Your task to perform on an android device: Open eBay Image 0: 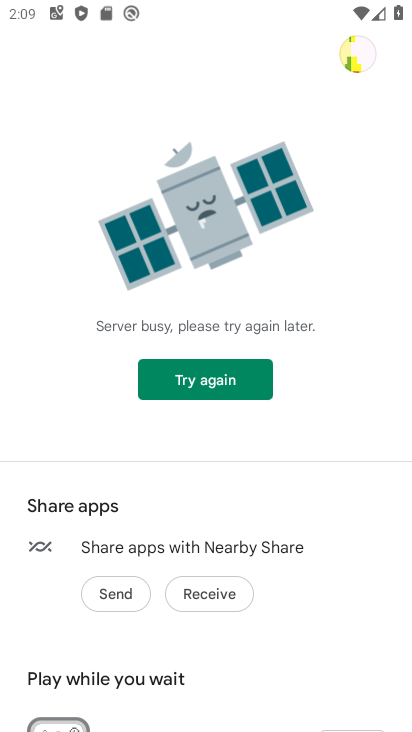
Step 0: press home button
Your task to perform on an android device: Open eBay Image 1: 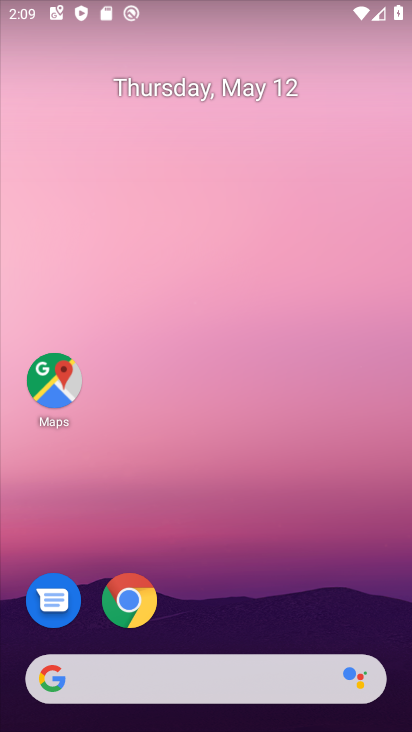
Step 1: click (117, 601)
Your task to perform on an android device: Open eBay Image 2: 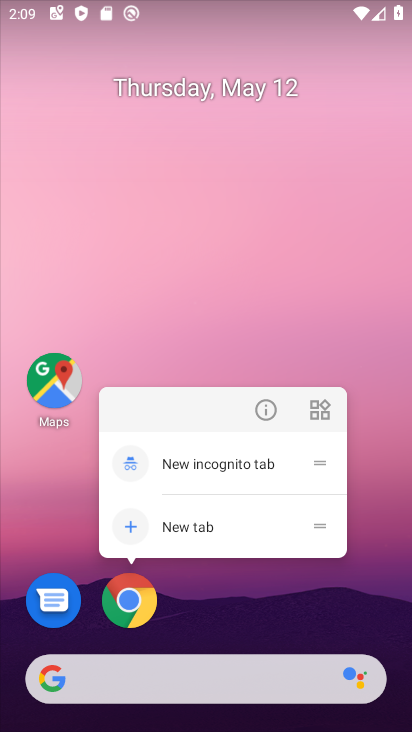
Step 2: click (128, 599)
Your task to perform on an android device: Open eBay Image 3: 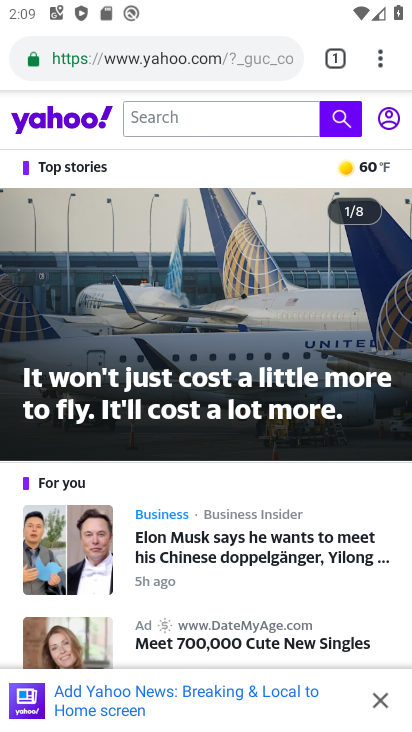
Step 3: click (189, 47)
Your task to perform on an android device: Open eBay Image 4: 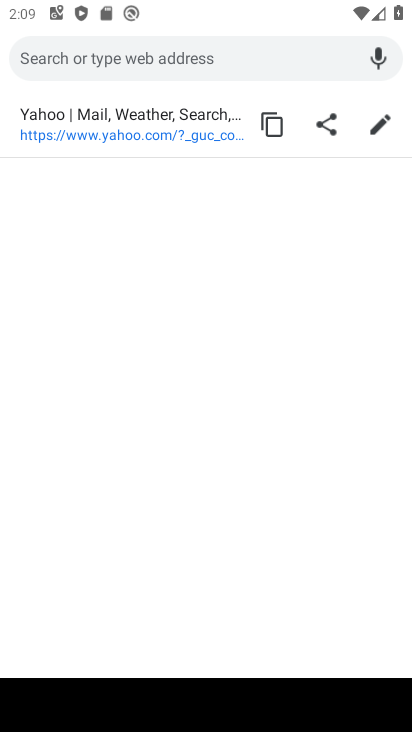
Step 4: type "eBay"
Your task to perform on an android device: Open eBay Image 5: 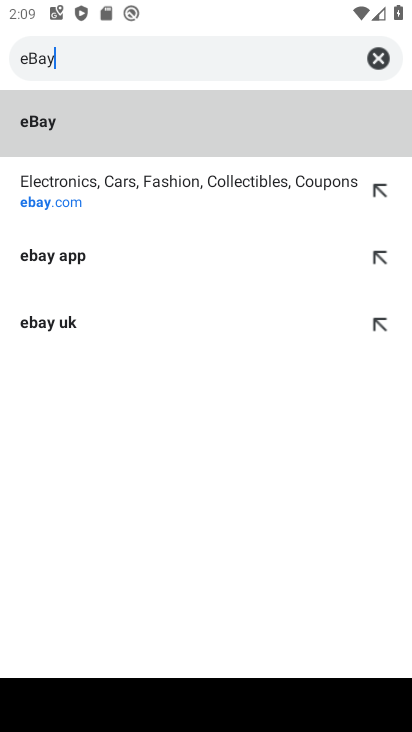
Step 5: click (120, 139)
Your task to perform on an android device: Open eBay Image 6: 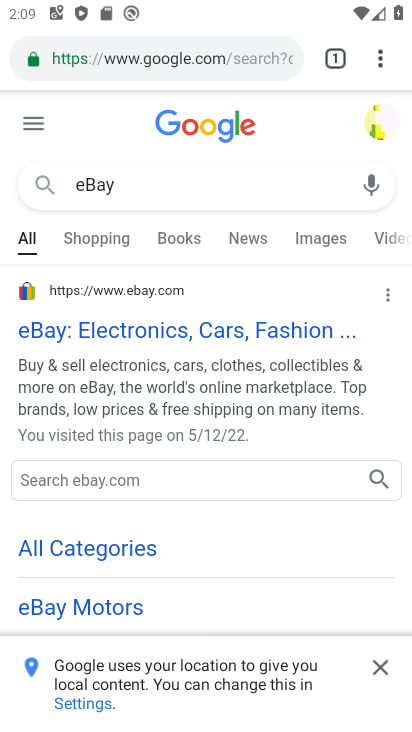
Step 6: task complete